Your task to perform on an android device: check battery use Image 0: 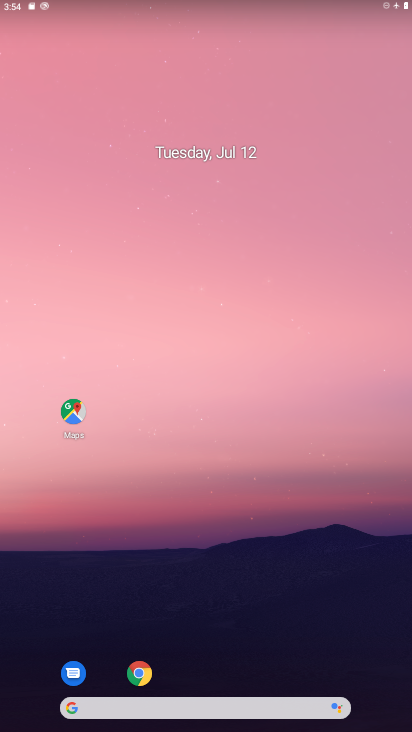
Step 0: drag from (185, 706) to (251, 93)
Your task to perform on an android device: check battery use Image 1: 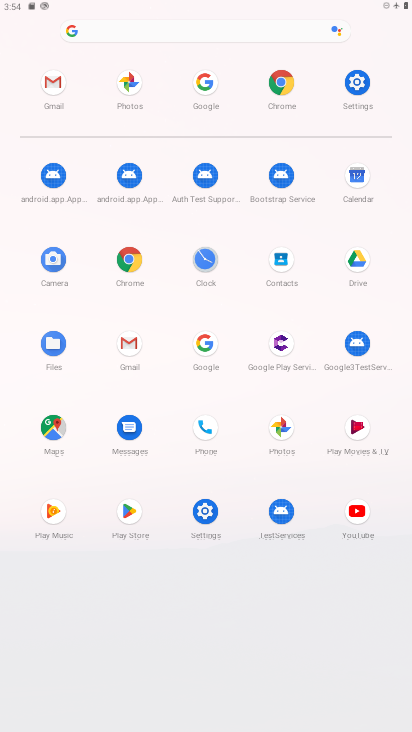
Step 1: click (356, 82)
Your task to perform on an android device: check battery use Image 2: 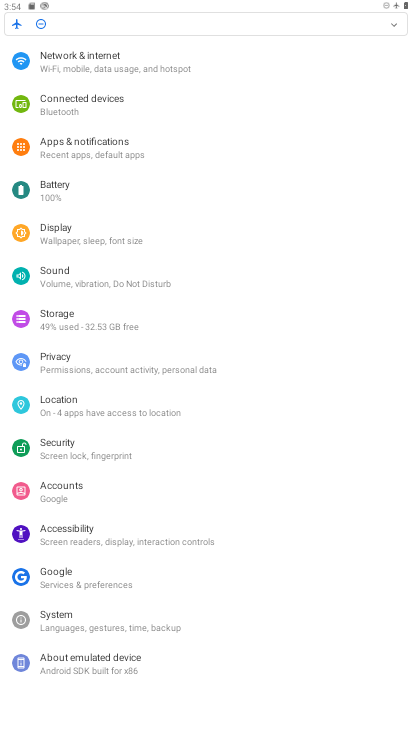
Step 2: click (63, 195)
Your task to perform on an android device: check battery use Image 3: 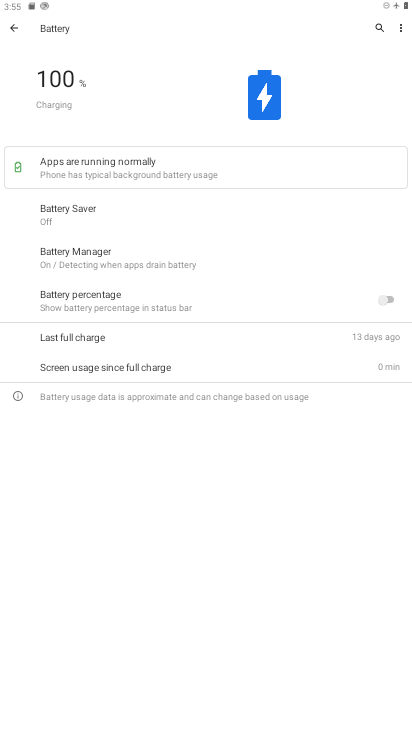
Step 3: click (398, 28)
Your task to perform on an android device: check battery use Image 4: 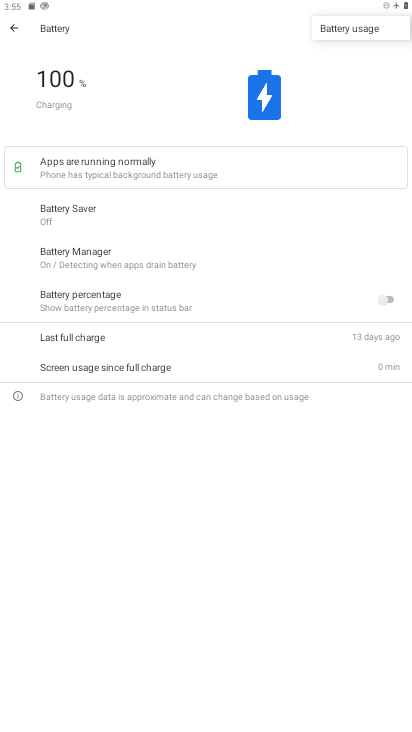
Step 4: click (335, 30)
Your task to perform on an android device: check battery use Image 5: 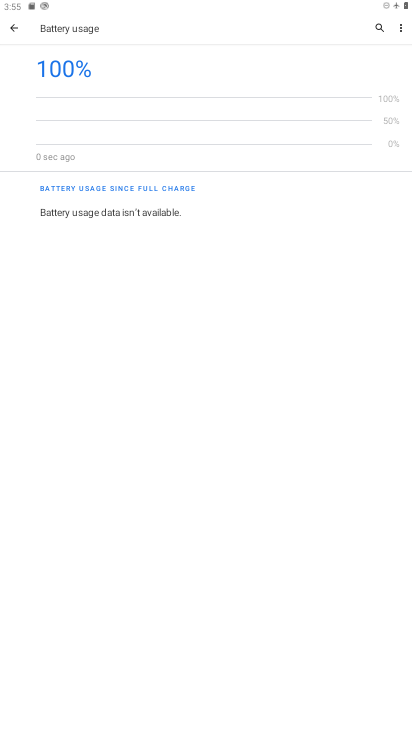
Step 5: task complete